Your task to perform on an android device: all mails in gmail Image 0: 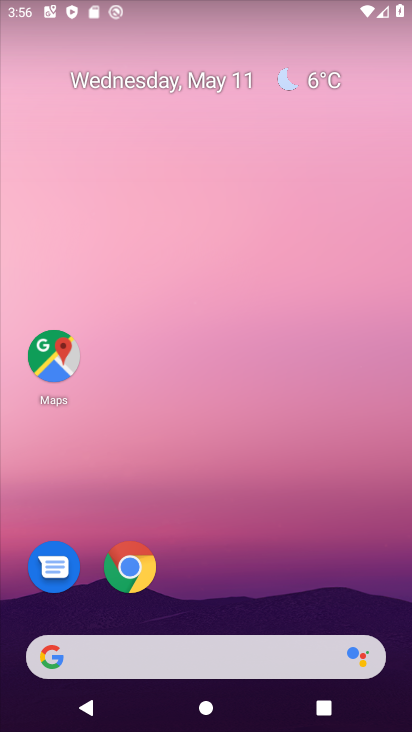
Step 0: drag from (230, 601) to (232, 180)
Your task to perform on an android device: all mails in gmail Image 1: 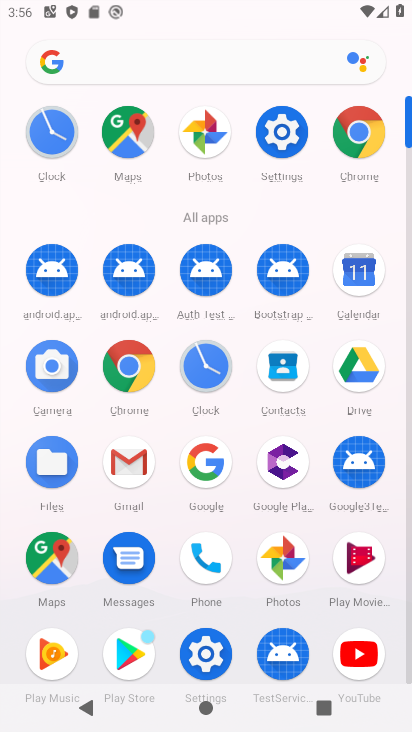
Step 1: click (130, 456)
Your task to perform on an android device: all mails in gmail Image 2: 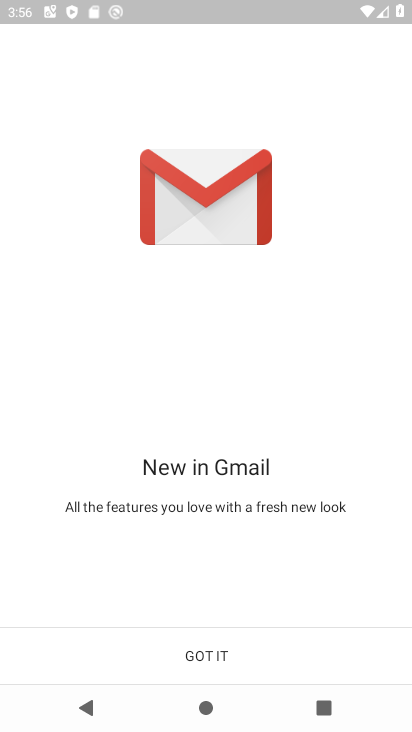
Step 2: click (227, 644)
Your task to perform on an android device: all mails in gmail Image 3: 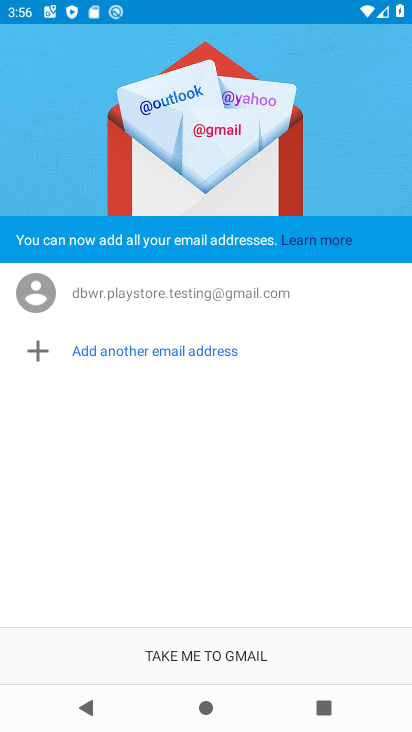
Step 3: click (225, 645)
Your task to perform on an android device: all mails in gmail Image 4: 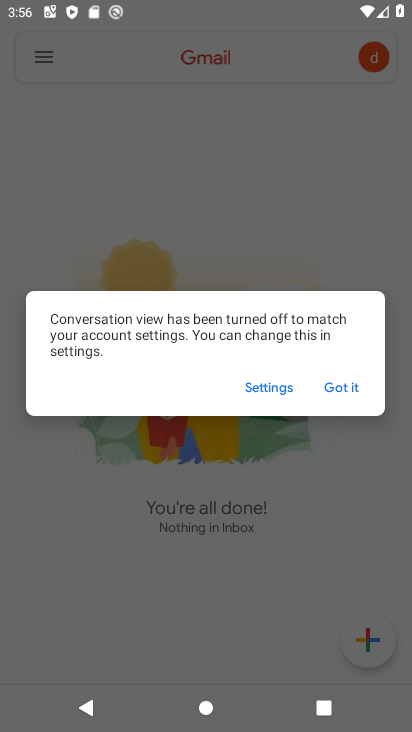
Step 4: click (348, 392)
Your task to perform on an android device: all mails in gmail Image 5: 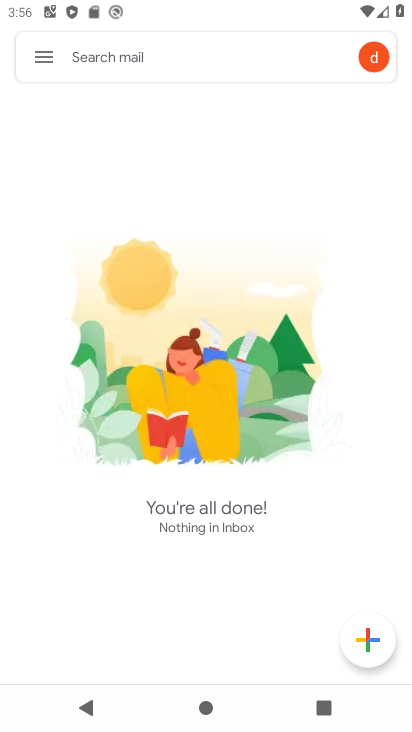
Step 5: click (38, 58)
Your task to perform on an android device: all mails in gmail Image 6: 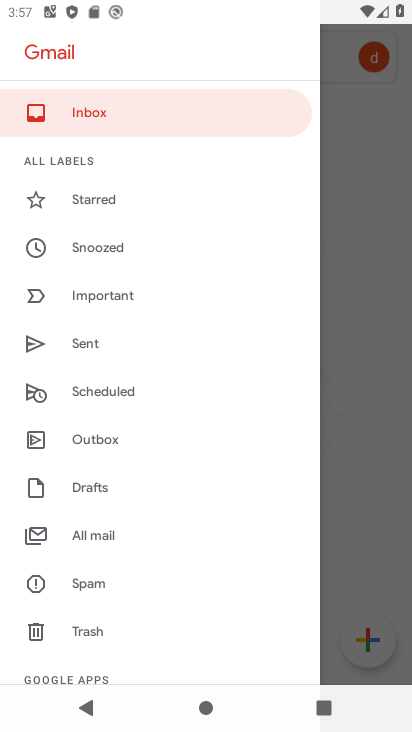
Step 6: click (115, 528)
Your task to perform on an android device: all mails in gmail Image 7: 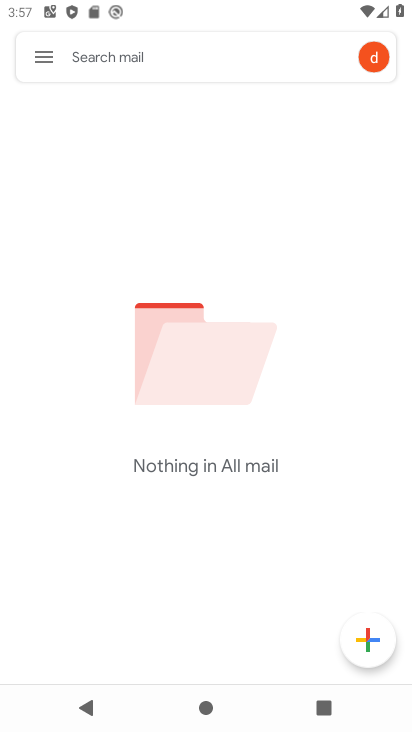
Step 7: task complete